Your task to perform on an android device: delete the emails in spam in the gmail app Image 0: 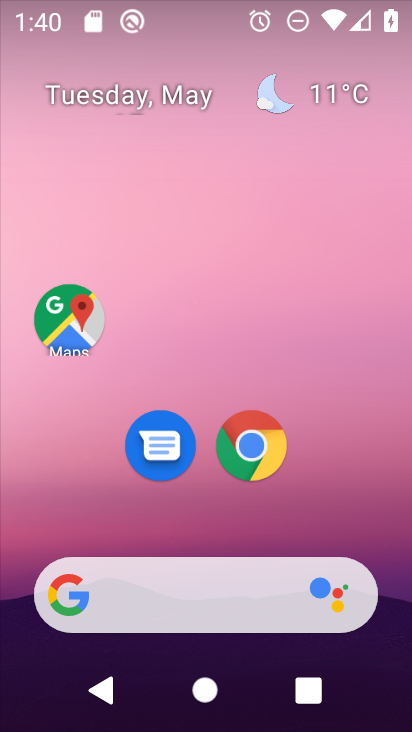
Step 0: drag from (380, 455) to (330, 0)
Your task to perform on an android device: delete the emails in spam in the gmail app Image 1: 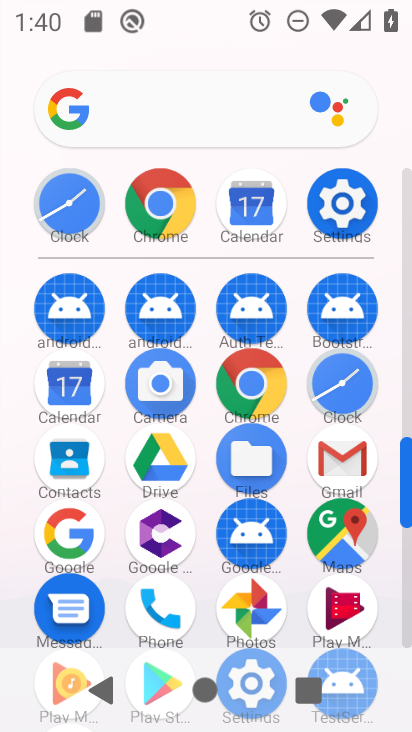
Step 1: click (339, 450)
Your task to perform on an android device: delete the emails in spam in the gmail app Image 2: 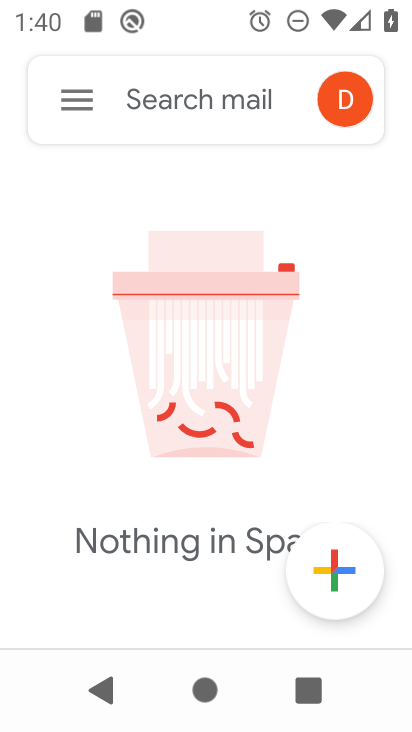
Step 2: click (75, 119)
Your task to perform on an android device: delete the emails in spam in the gmail app Image 3: 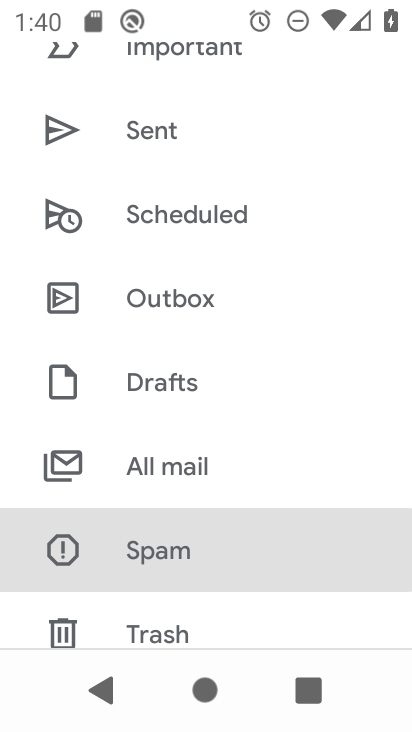
Step 3: click (233, 550)
Your task to perform on an android device: delete the emails in spam in the gmail app Image 4: 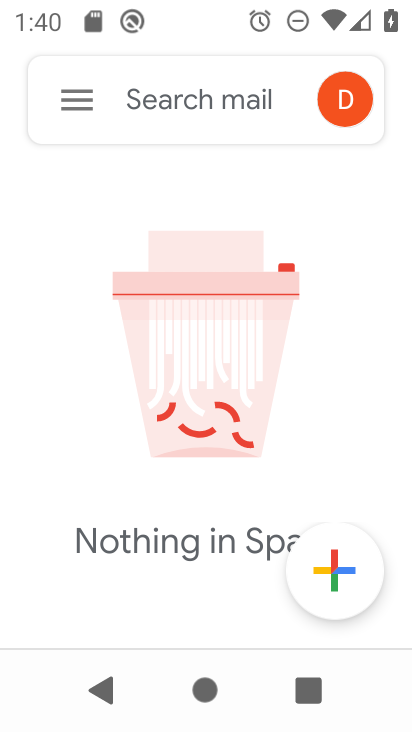
Step 4: task complete